Your task to perform on an android device: turn on showing notifications on the lock screen Image 0: 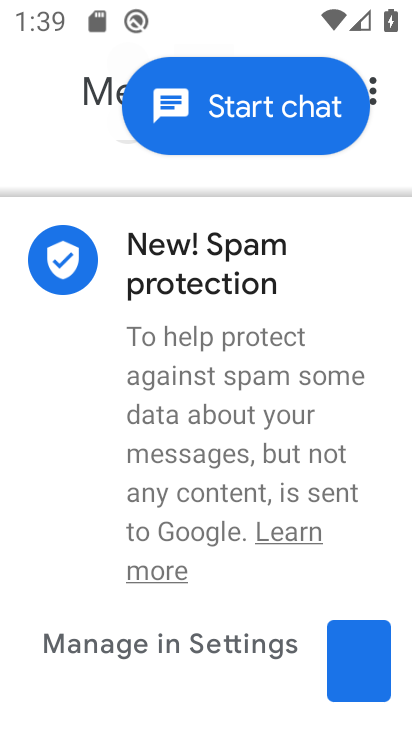
Step 0: press home button
Your task to perform on an android device: turn on showing notifications on the lock screen Image 1: 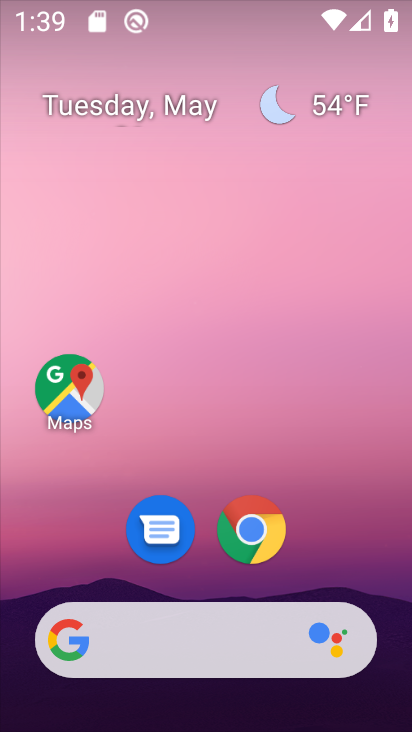
Step 1: drag from (293, 533) to (297, 238)
Your task to perform on an android device: turn on showing notifications on the lock screen Image 2: 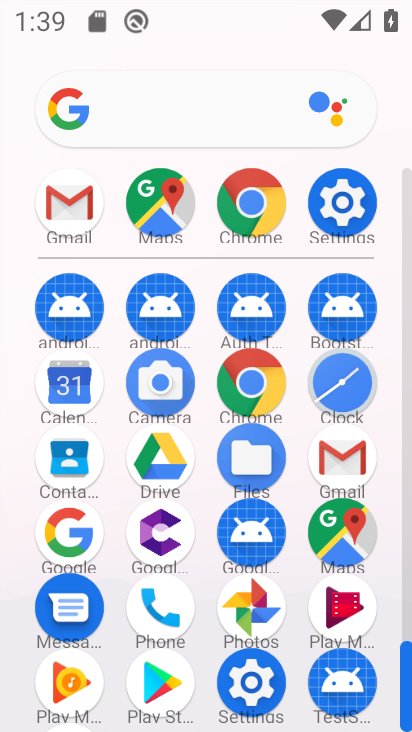
Step 2: click (250, 370)
Your task to perform on an android device: turn on showing notifications on the lock screen Image 3: 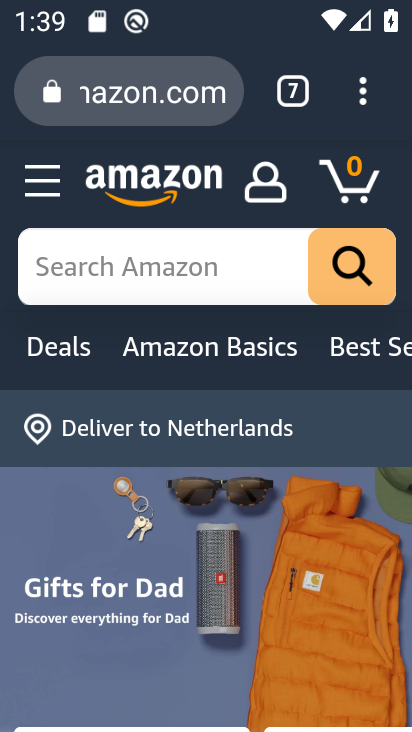
Step 3: press back button
Your task to perform on an android device: turn on showing notifications on the lock screen Image 4: 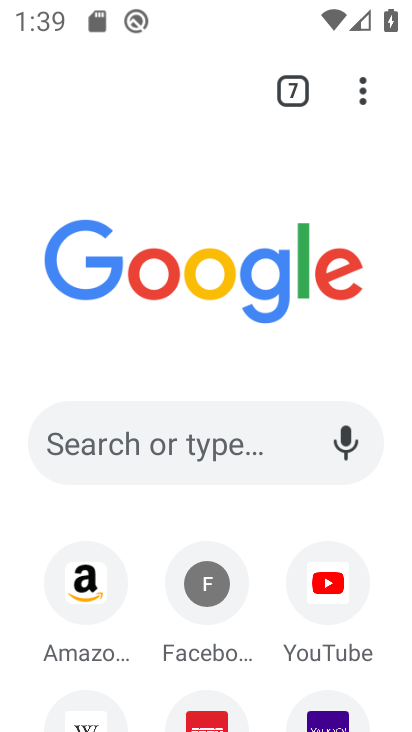
Step 4: press home button
Your task to perform on an android device: turn on showing notifications on the lock screen Image 5: 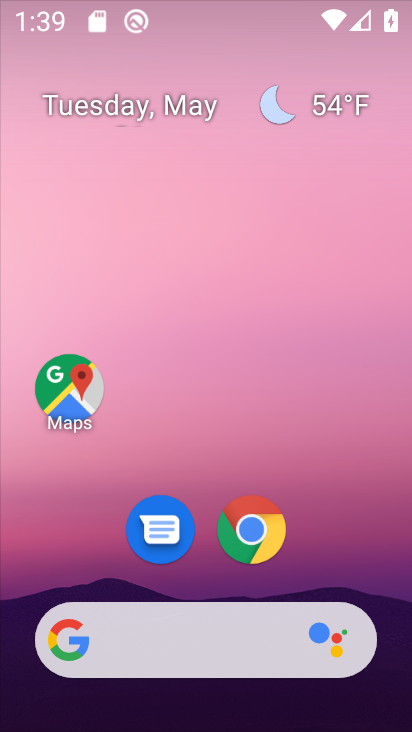
Step 5: drag from (289, 533) to (295, 256)
Your task to perform on an android device: turn on showing notifications on the lock screen Image 6: 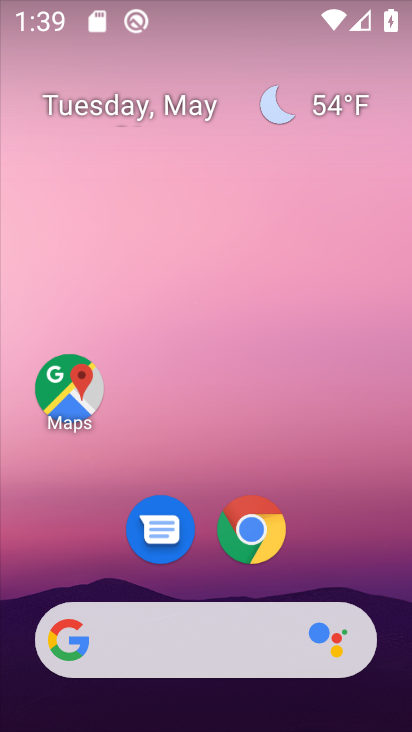
Step 6: drag from (321, 531) to (308, 274)
Your task to perform on an android device: turn on showing notifications on the lock screen Image 7: 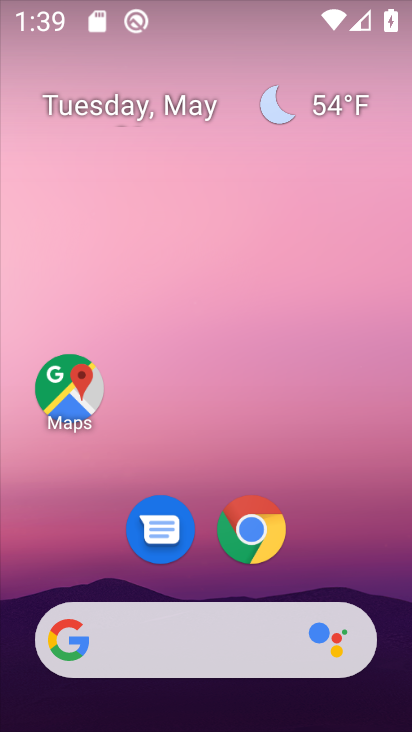
Step 7: drag from (322, 551) to (287, 232)
Your task to perform on an android device: turn on showing notifications on the lock screen Image 8: 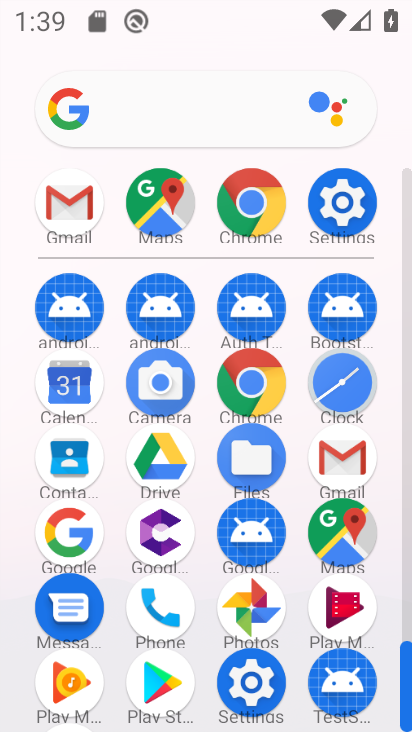
Step 8: click (260, 186)
Your task to perform on an android device: turn on showing notifications on the lock screen Image 9: 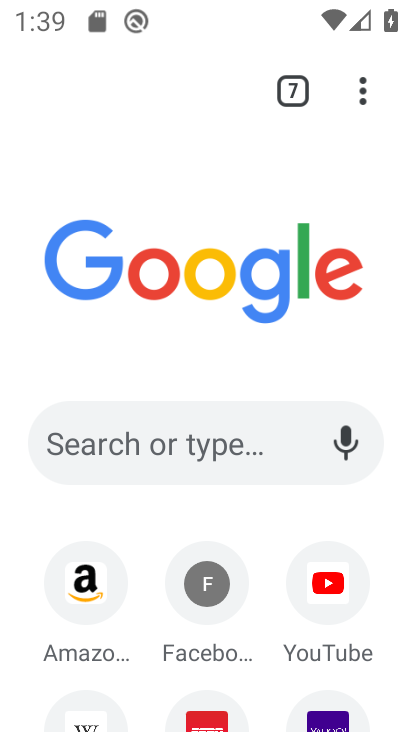
Step 9: press home button
Your task to perform on an android device: turn on showing notifications on the lock screen Image 10: 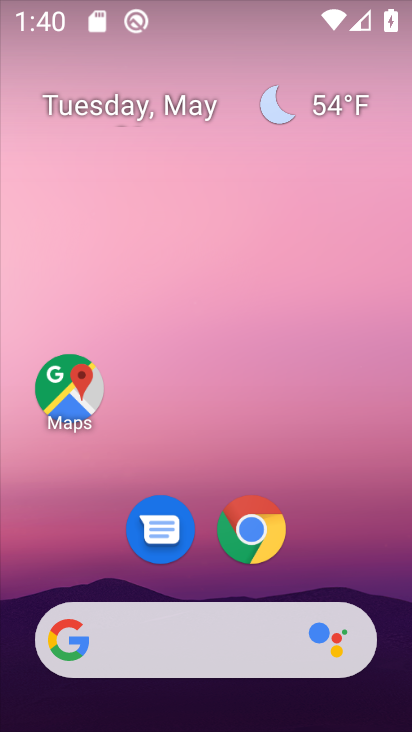
Step 10: drag from (286, 535) to (282, 223)
Your task to perform on an android device: turn on showing notifications on the lock screen Image 11: 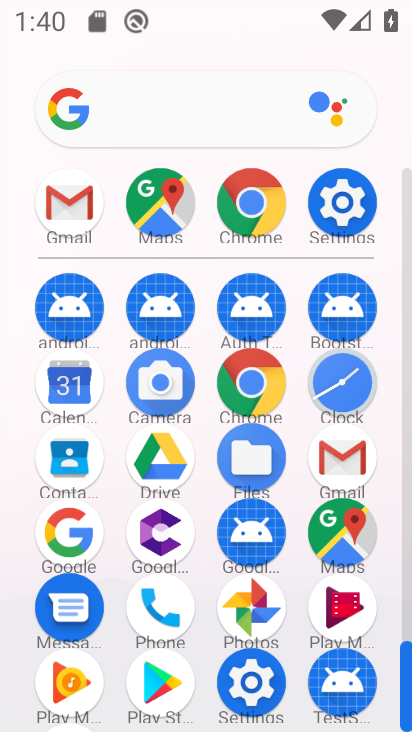
Step 11: click (345, 206)
Your task to perform on an android device: turn on showing notifications on the lock screen Image 12: 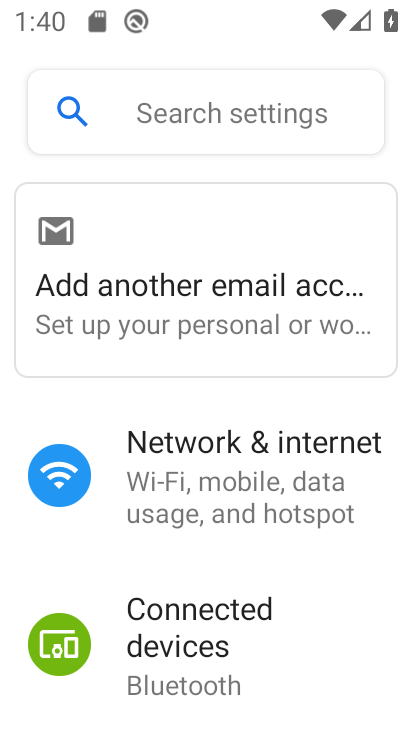
Step 12: drag from (195, 530) to (226, 313)
Your task to perform on an android device: turn on showing notifications on the lock screen Image 13: 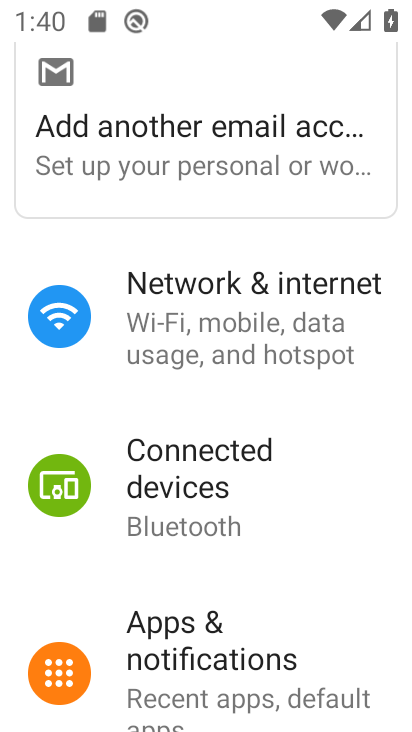
Step 13: click (205, 644)
Your task to perform on an android device: turn on showing notifications on the lock screen Image 14: 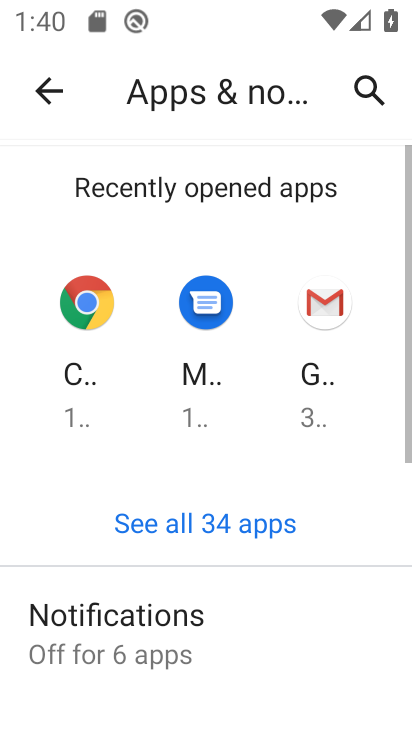
Step 14: click (194, 621)
Your task to perform on an android device: turn on showing notifications on the lock screen Image 15: 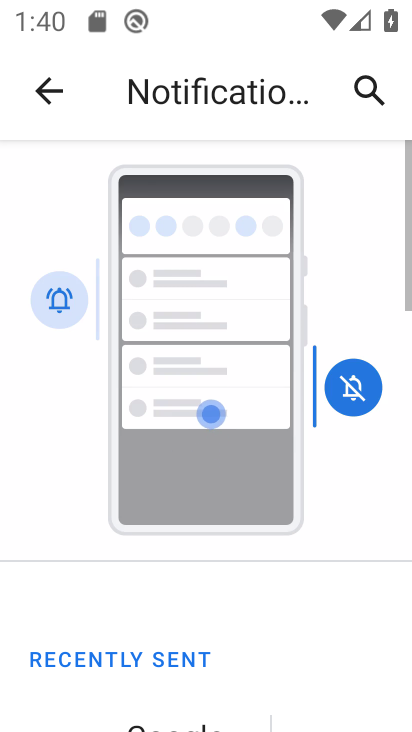
Step 15: drag from (197, 609) to (213, 261)
Your task to perform on an android device: turn on showing notifications on the lock screen Image 16: 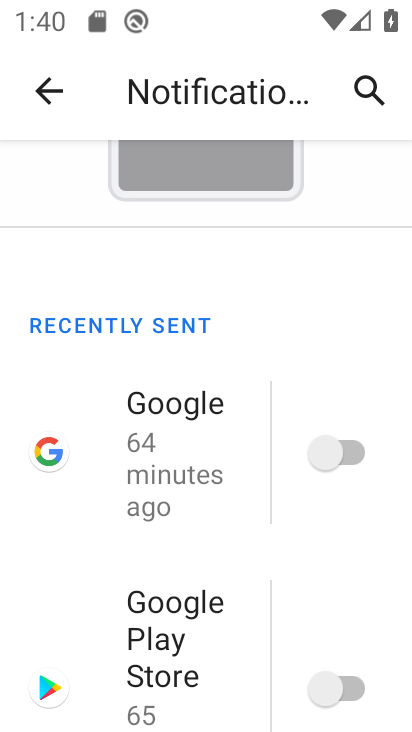
Step 16: drag from (191, 620) to (176, 179)
Your task to perform on an android device: turn on showing notifications on the lock screen Image 17: 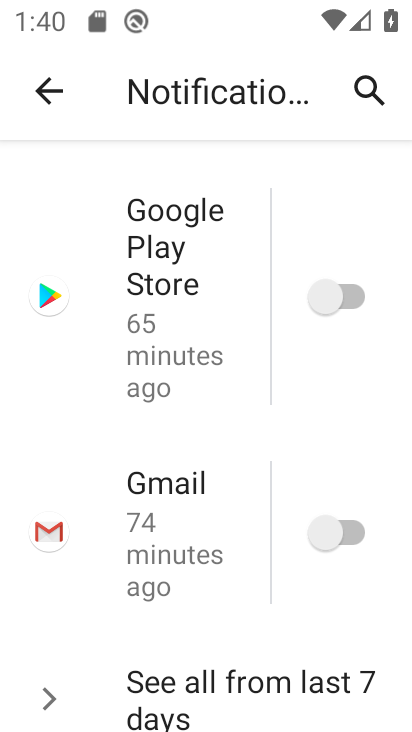
Step 17: drag from (137, 625) to (217, 278)
Your task to perform on an android device: turn on showing notifications on the lock screen Image 18: 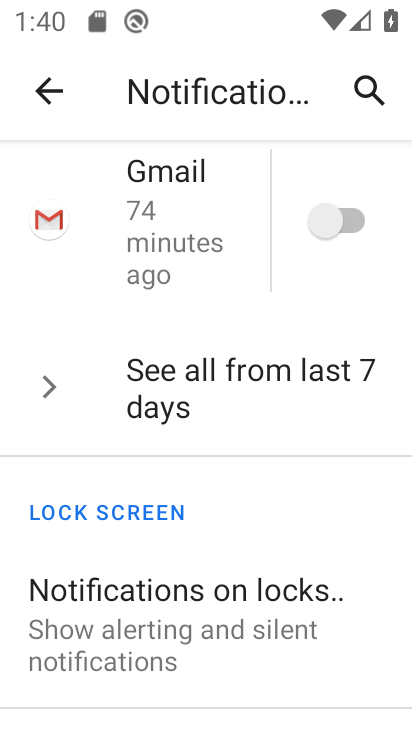
Step 18: click (173, 604)
Your task to perform on an android device: turn on showing notifications on the lock screen Image 19: 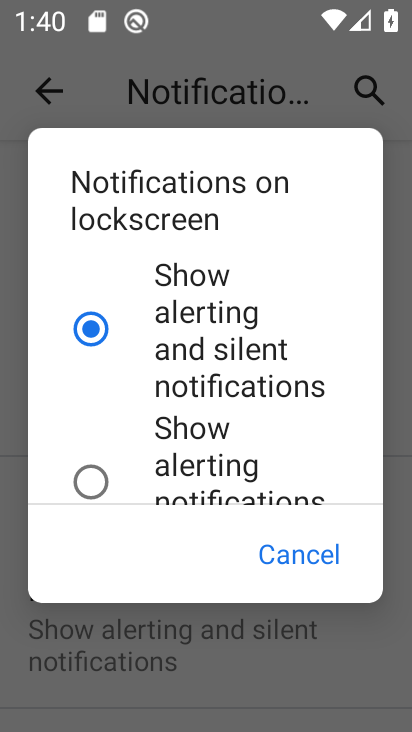
Step 19: task complete